Your task to perform on an android device: clear history in the chrome app Image 0: 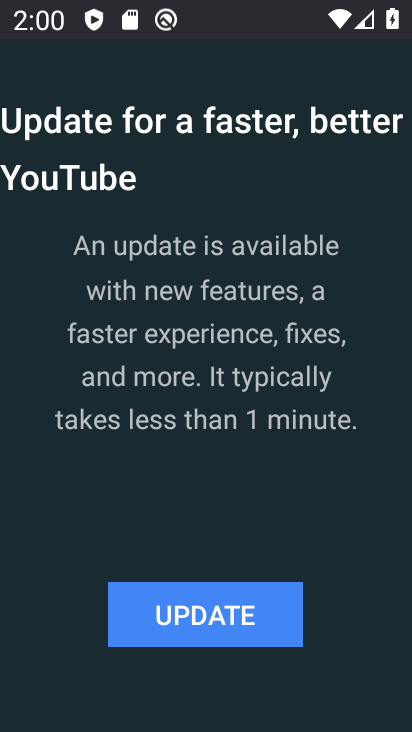
Step 0: press home button
Your task to perform on an android device: clear history in the chrome app Image 1: 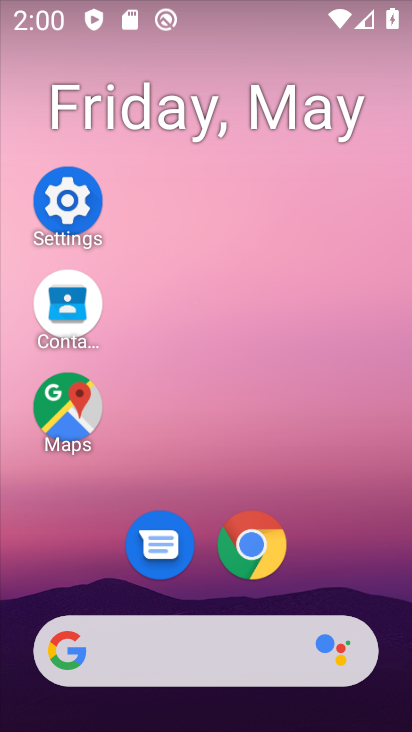
Step 1: click (271, 537)
Your task to perform on an android device: clear history in the chrome app Image 2: 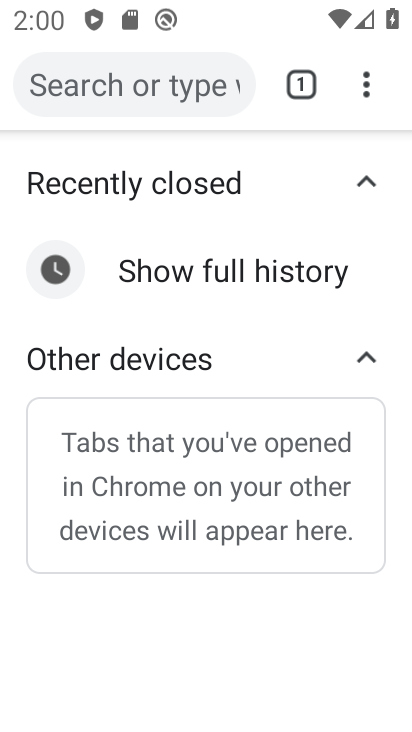
Step 2: click (370, 91)
Your task to perform on an android device: clear history in the chrome app Image 3: 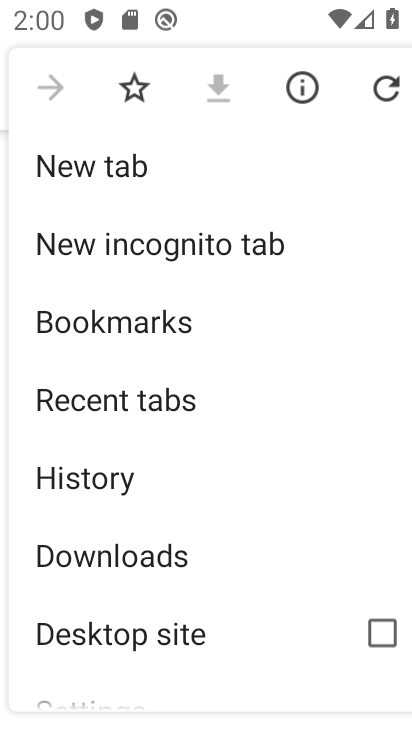
Step 3: click (143, 458)
Your task to perform on an android device: clear history in the chrome app Image 4: 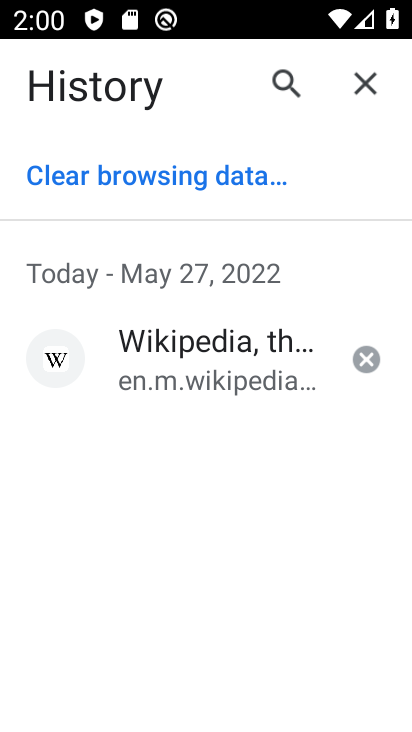
Step 4: click (119, 174)
Your task to perform on an android device: clear history in the chrome app Image 5: 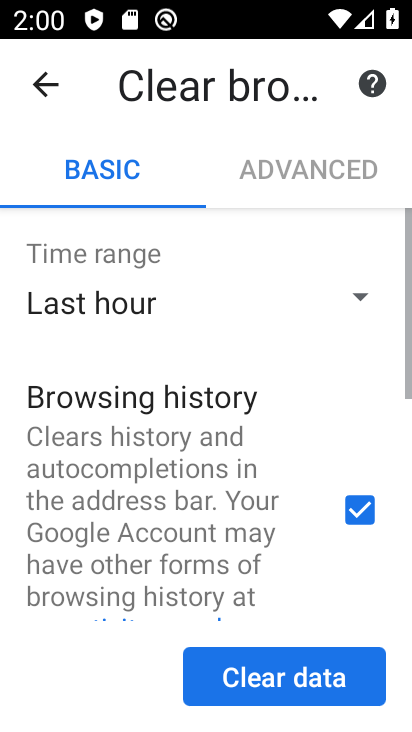
Step 5: click (314, 686)
Your task to perform on an android device: clear history in the chrome app Image 6: 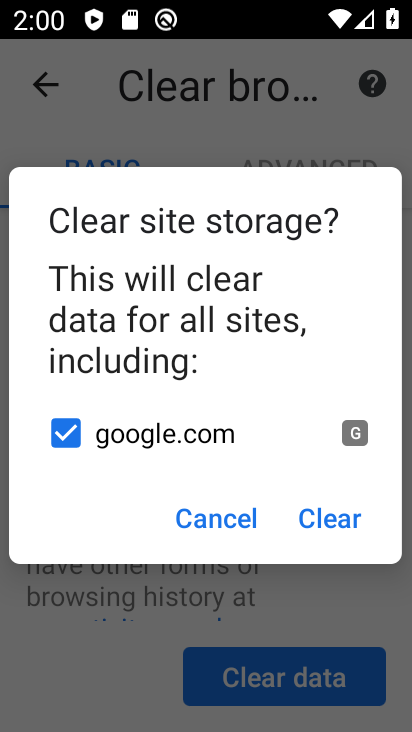
Step 6: click (340, 533)
Your task to perform on an android device: clear history in the chrome app Image 7: 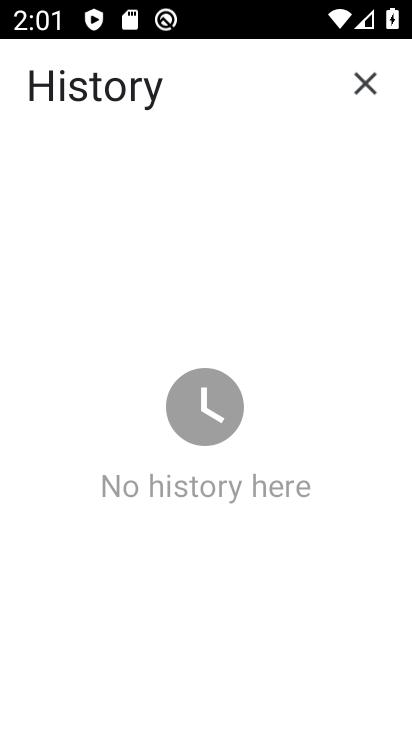
Step 7: task complete